Your task to perform on an android device: turn on sleep mode Image 0: 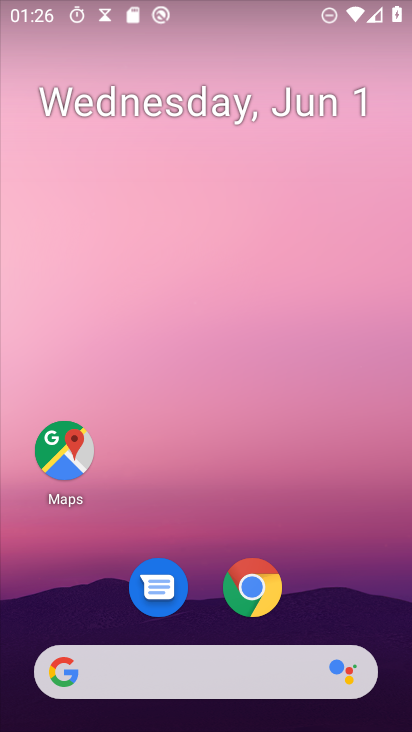
Step 0: drag from (308, 605) to (332, 13)
Your task to perform on an android device: turn on sleep mode Image 1: 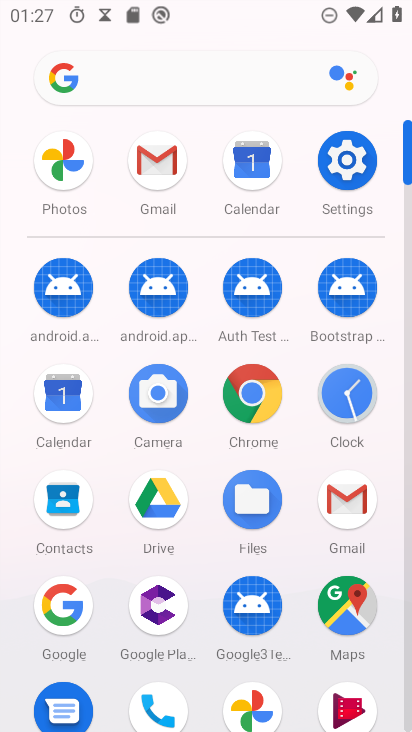
Step 1: click (339, 162)
Your task to perform on an android device: turn on sleep mode Image 2: 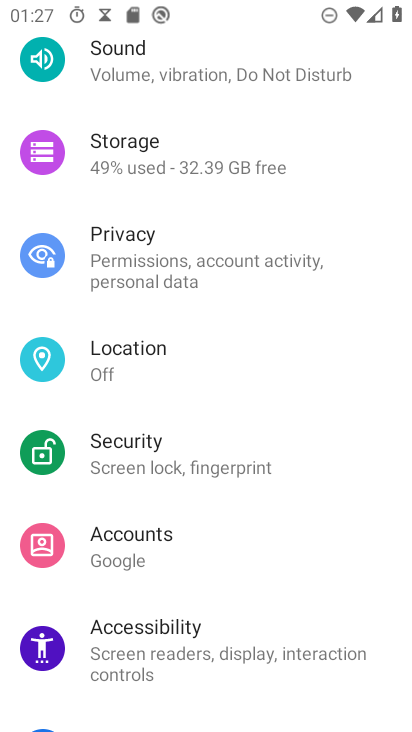
Step 2: drag from (242, 234) to (267, 561)
Your task to perform on an android device: turn on sleep mode Image 3: 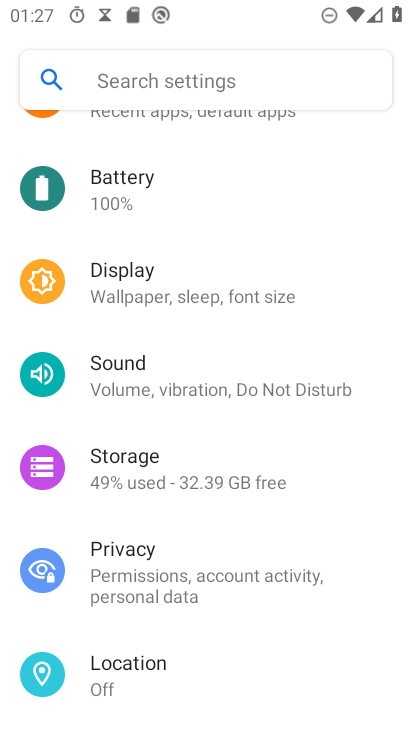
Step 3: click (244, 268)
Your task to perform on an android device: turn on sleep mode Image 4: 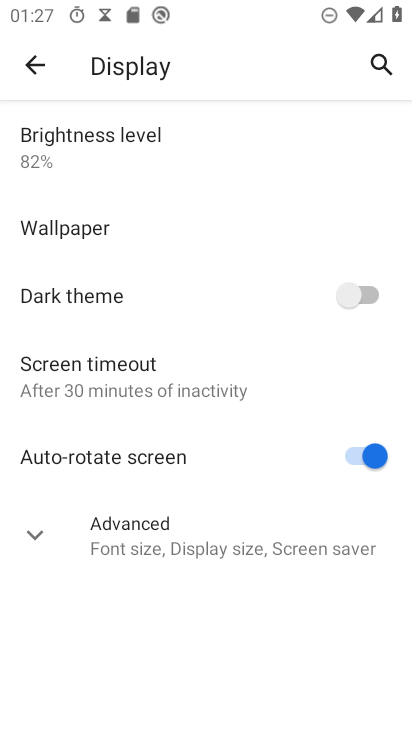
Step 4: click (173, 553)
Your task to perform on an android device: turn on sleep mode Image 5: 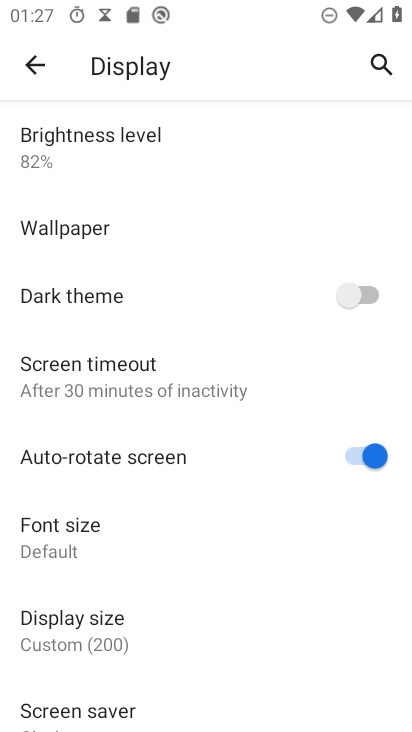
Step 5: task complete